Your task to perform on an android device: empty trash in google photos Image 0: 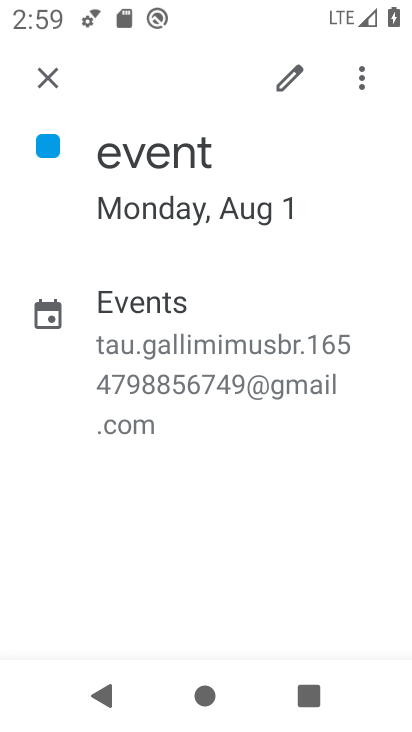
Step 0: press home button
Your task to perform on an android device: empty trash in google photos Image 1: 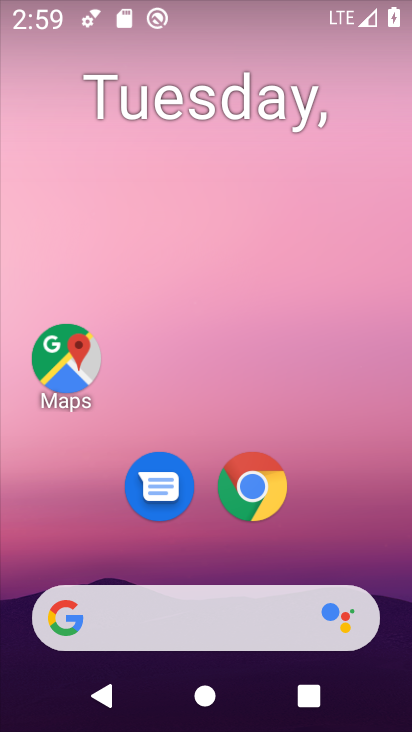
Step 1: drag from (377, 542) to (367, 80)
Your task to perform on an android device: empty trash in google photos Image 2: 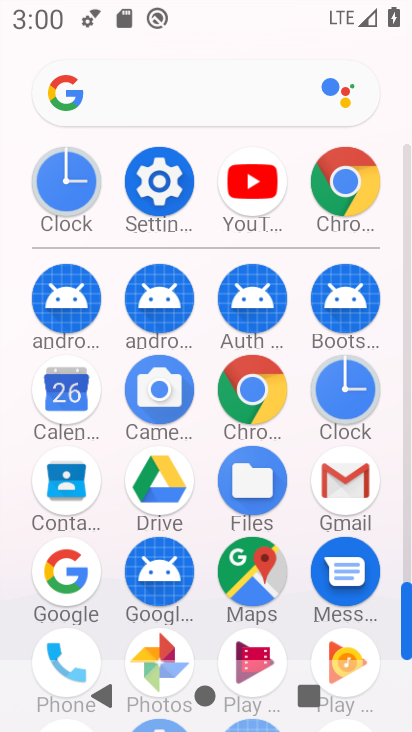
Step 2: drag from (390, 509) to (390, 320)
Your task to perform on an android device: empty trash in google photos Image 3: 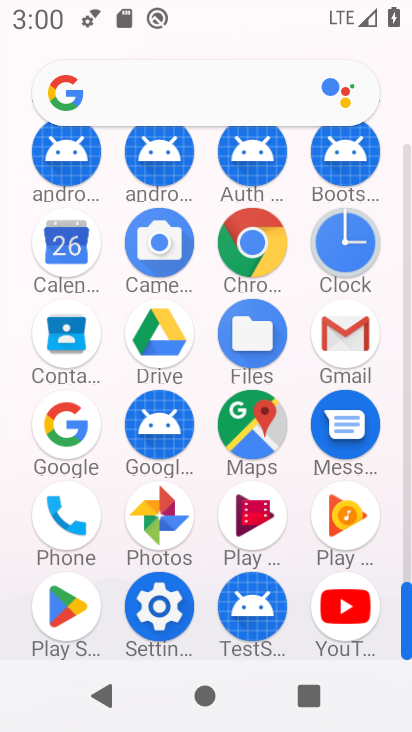
Step 3: click (150, 520)
Your task to perform on an android device: empty trash in google photos Image 4: 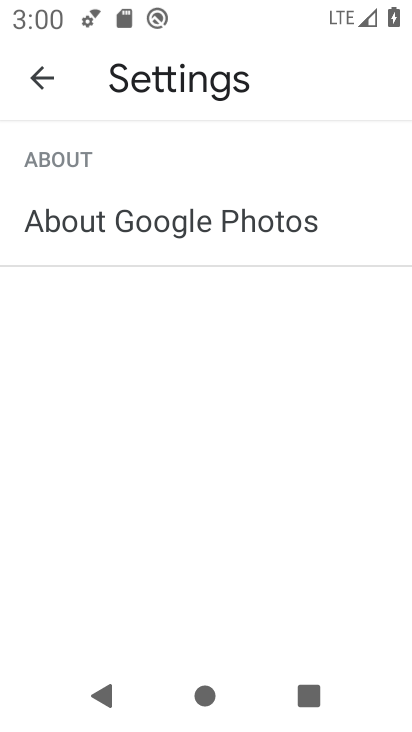
Step 4: press back button
Your task to perform on an android device: empty trash in google photos Image 5: 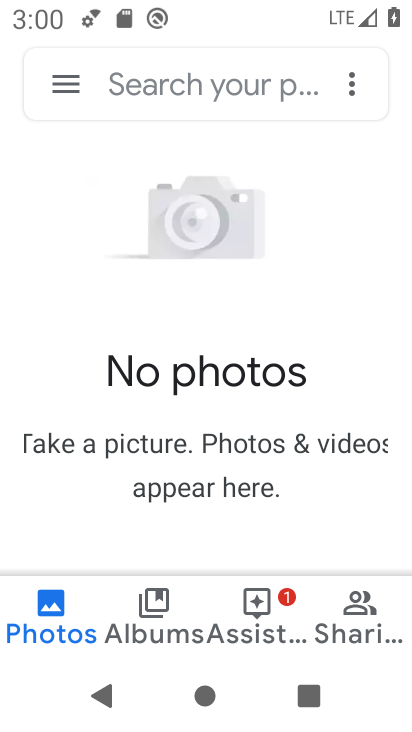
Step 5: click (61, 90)
Your task to perform on an android device: empty trash in google photos Image 6: 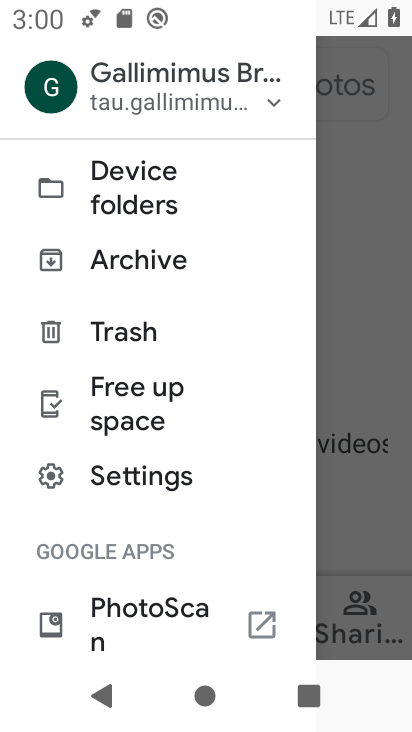
Step 6: click (176, 339)
Your task to perform on an android device: empty trash in google photos Image 7: 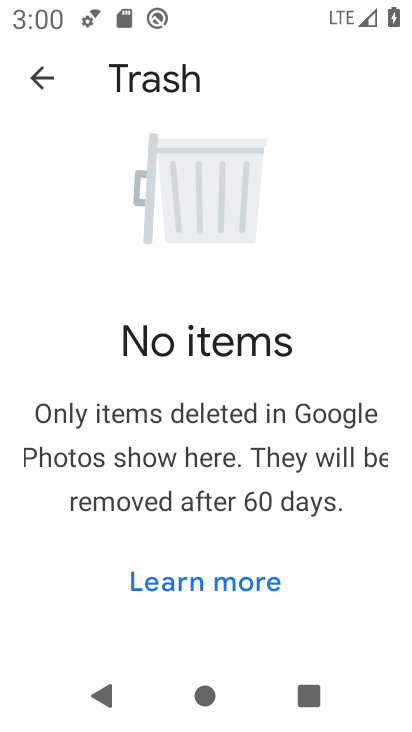
Step 7: task complete